Your task to perform on an android device: Open calendar and show me the third week of next month Image 0: 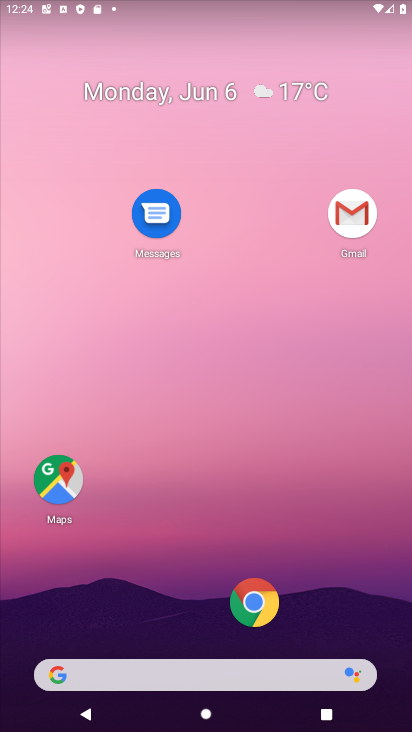
Step 0: drag from (358, 619) to (172, 7)
Your task to perform on an android device: Open calendar and show me the third week of next month Image 1: 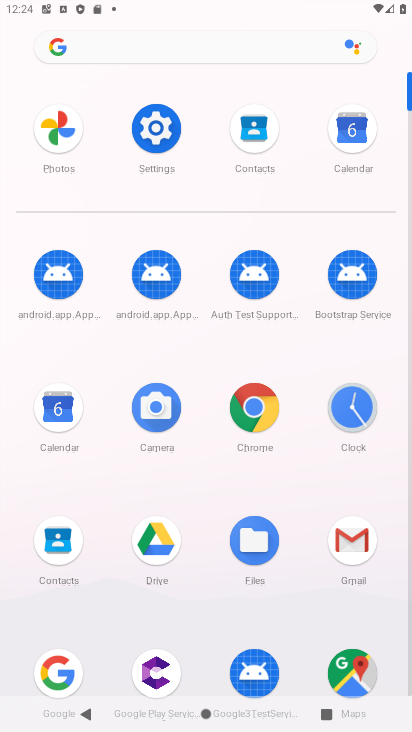
Step 1: click (337, 148)
Your task to perform on an android device: Open calendar and show me the third week of next month Image 2: 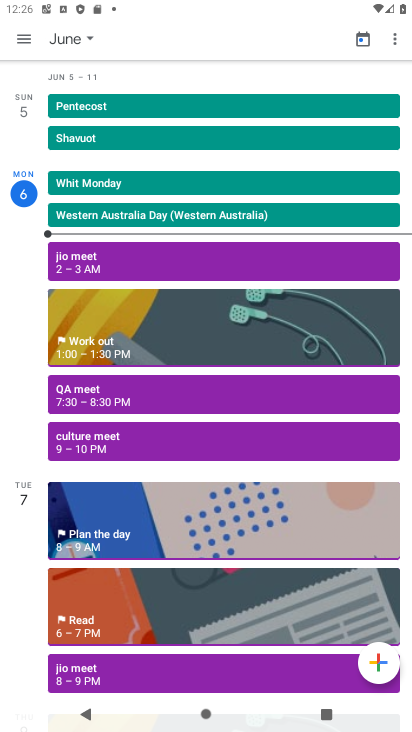
Step 2: click (60, 33)
Your task to perform on an android device: Open calendar and show me the third week of next month Image 3: 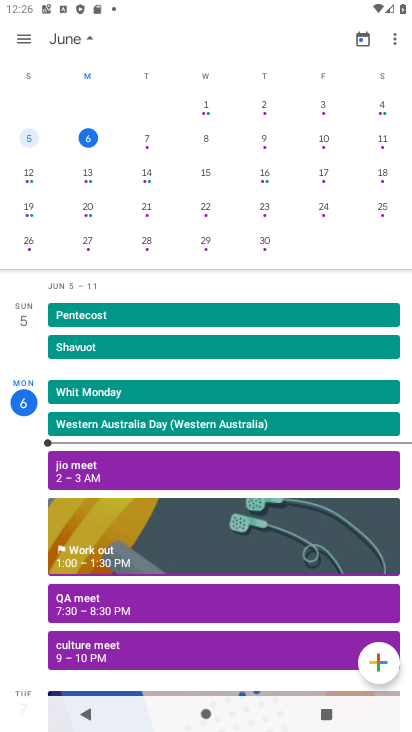
Step 3: drag from (365, 223) to (38, 218)
Your task to perform on an android device: Open calendar and show me the third week of next month Image 4: 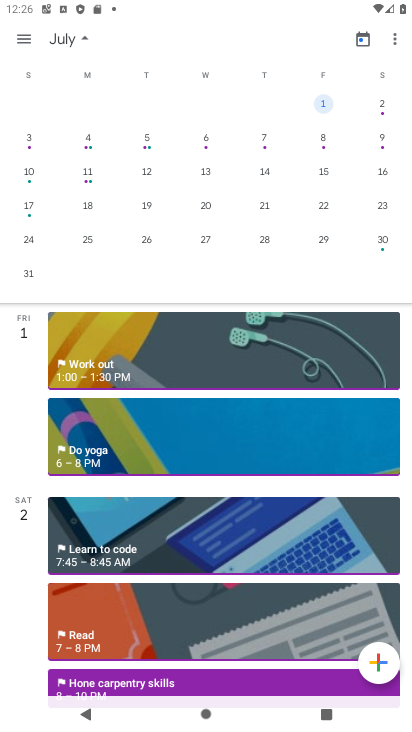
Step 4: click (226, 206)
Your task to perform on an android device: Open calendar and show me the third week of next month Image 5: 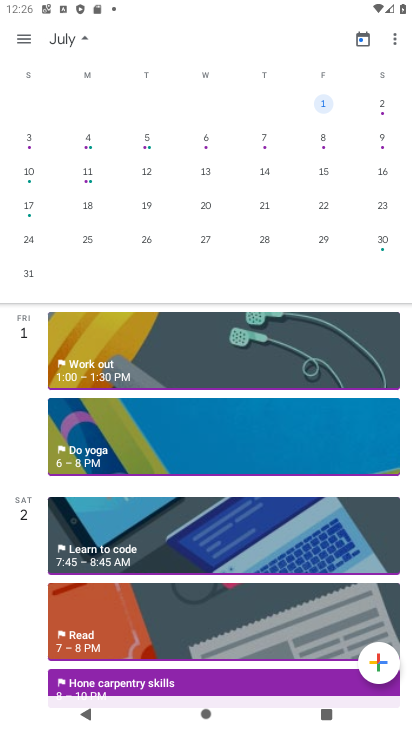
Step 5: task complete